Your task to perform on an android device: toggle javascript in the chrome app Image 0: 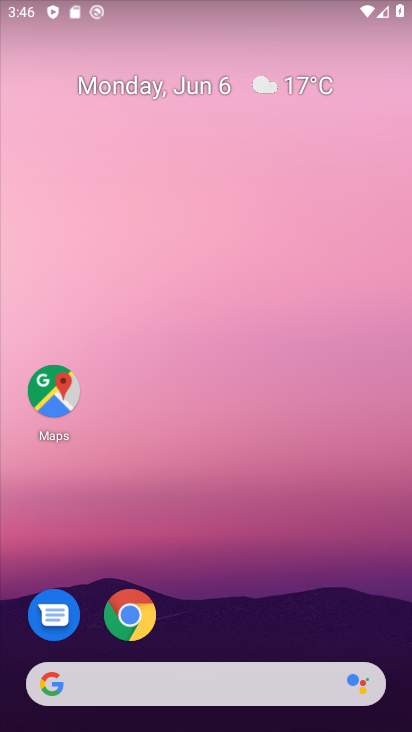
Step 0: drag from (277, 567) to (186, 9)
Your task to perform on an android device: toggle javascript in the chrome app Image 1: 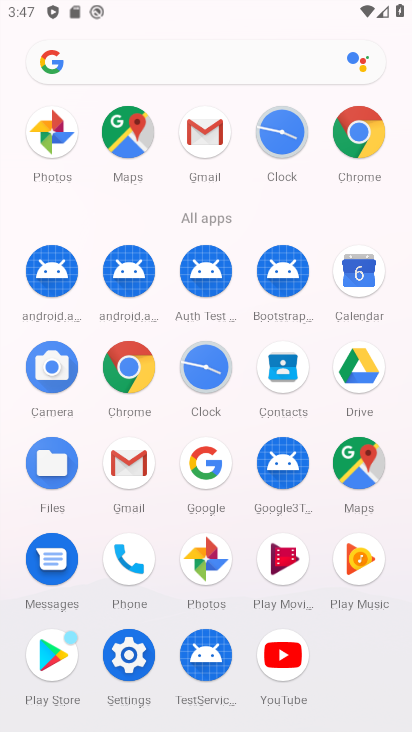
Step 1: click (129, 365)
Your task to perform on an android device: toggle javascript in the chrome app Image 2: 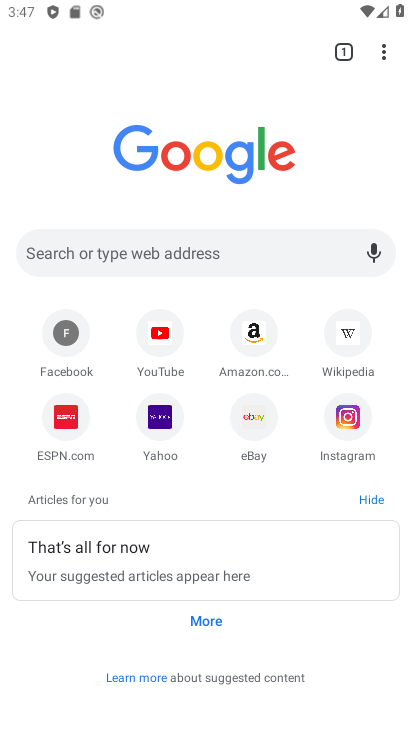
Step 2: drag from (382, 50) to (201, 426)
Your task to perform on an android device: toggle javascript in the chrome app Image 3: 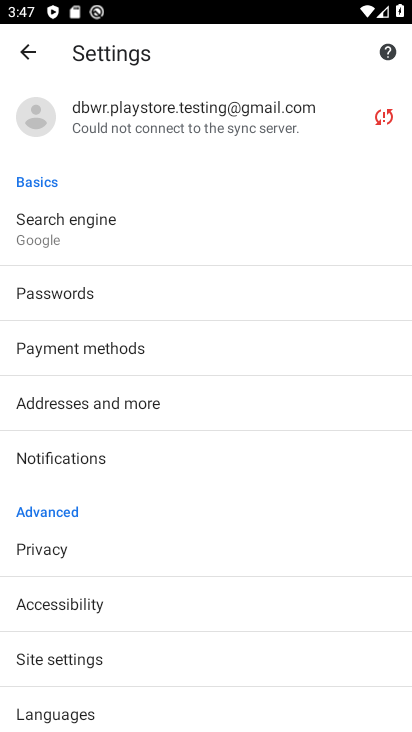
Step 3: click (89, 647)
Your task to perform on an android device: toggle javascript in the chrome app Image 4: 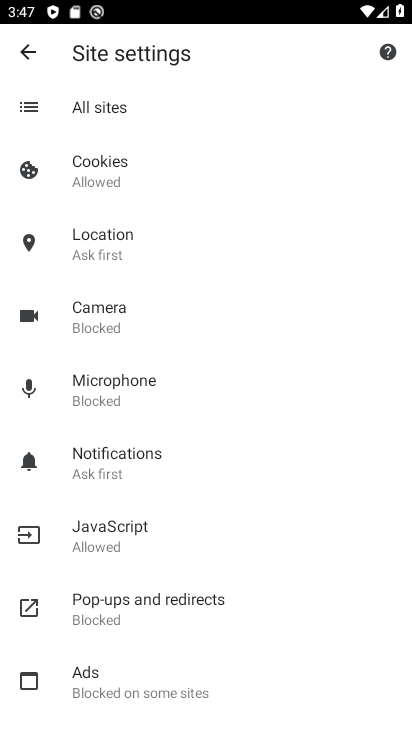
Step 4: click (115, 535)
Your task to perform on an android device: toggle javascript in the chrome app Image 5: 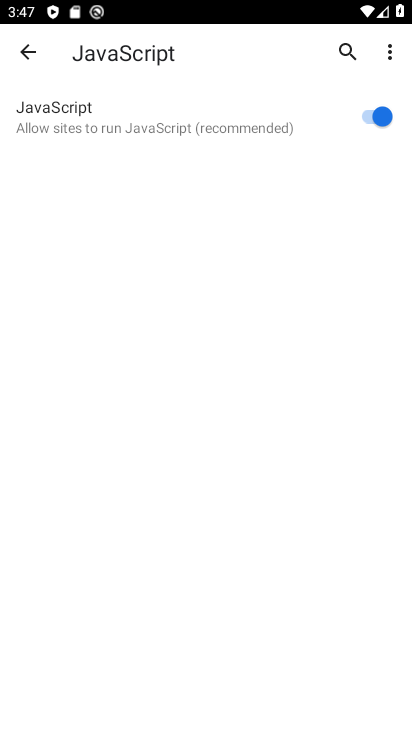
Step 5: click (383, 110)
Your task to perform on an android device: toggle javascript in the chrome app Image 6: 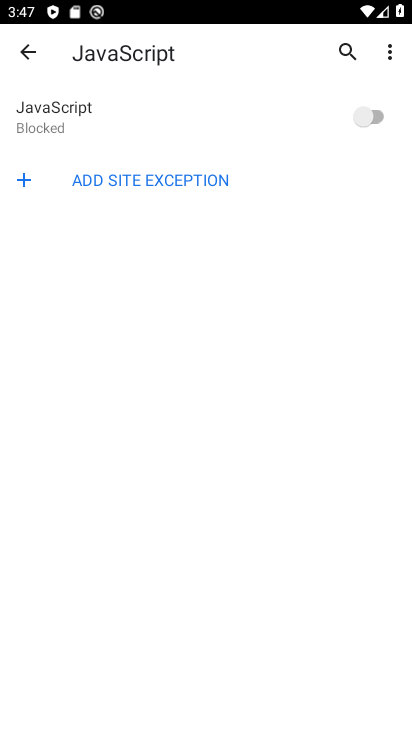
Step 6: task complete